Your task to perform on an android device: open app "Google News" Image 0: 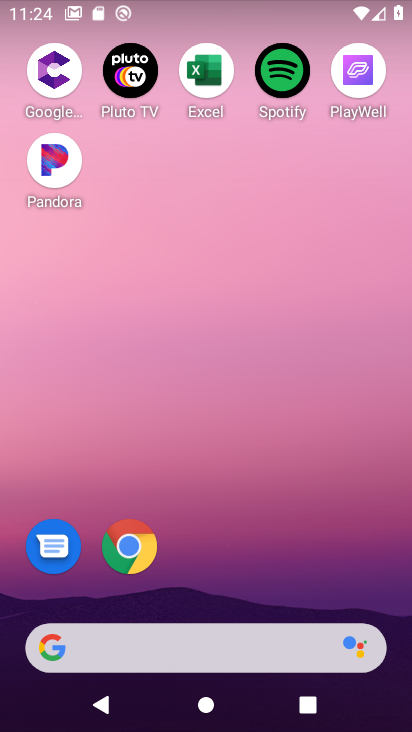
Step 0: drag from (192, 592) to (192, 128)
Your task to perform on an android device: open app "Google News" Image 1: 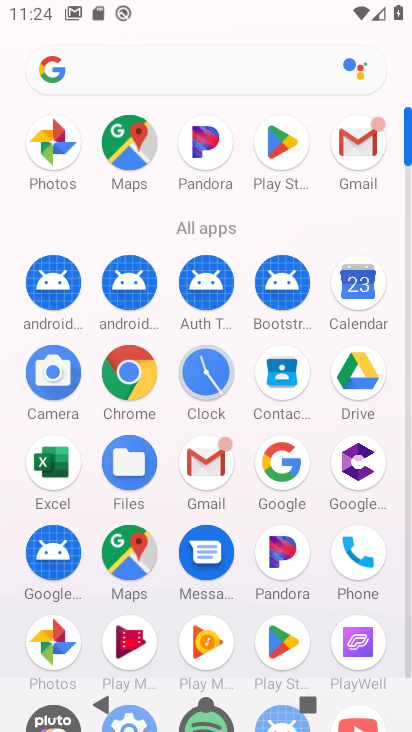
Step 1: click (275, 140)
Your task to perform on an android device: open app "Google News" Image 2: 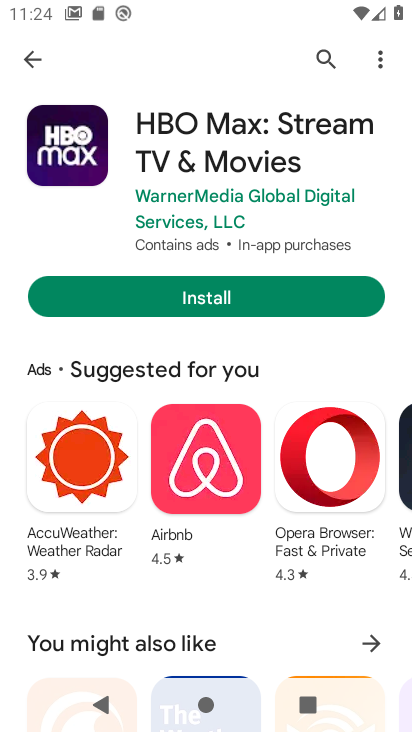
Step 2: click (30, 53)
Your task to perform on an android device: open app "Google News" Image 3: 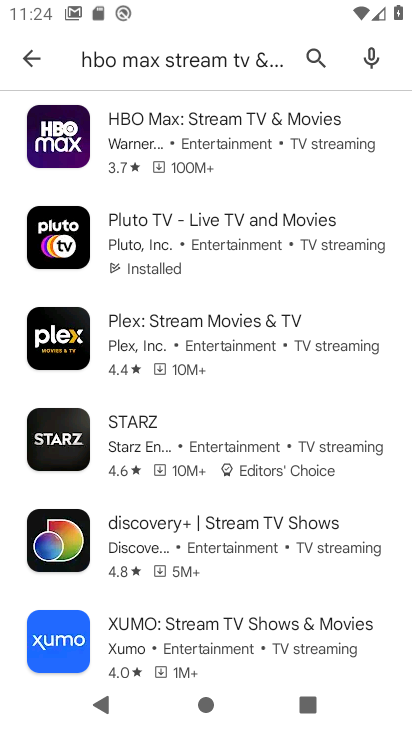
Step 3: click (317, 50)
Your task to perform on an android device: open app "Google News" Image 4: 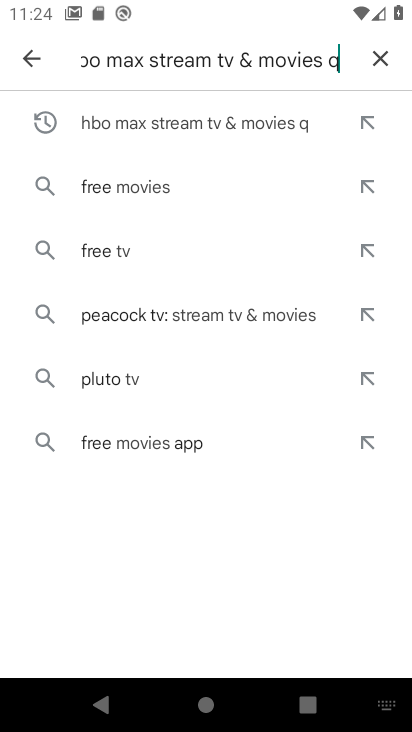
Step 4: click (383, 60)
Your task to perform on an android device: open app "Google News" Image 5: 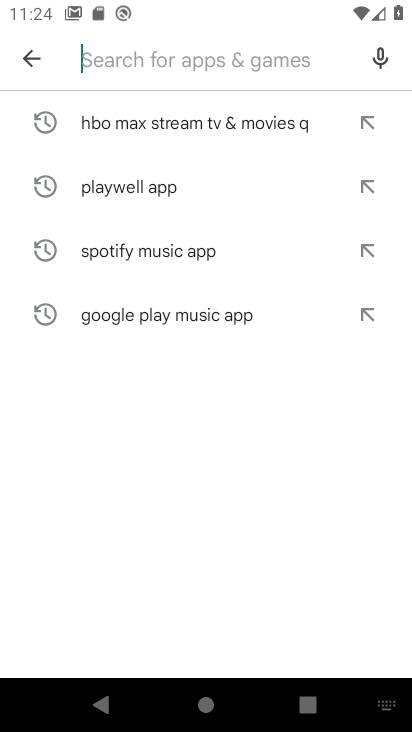
Step 5: click (184, 58)
Your task to perform on an android device: open app "Google News" Image 6: 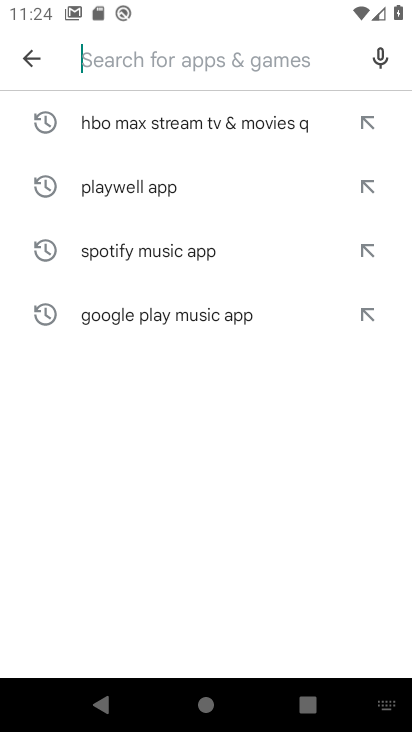
Step 6: type "Google News "
Your task to perform on an android device: open app "Google News" Image 7: 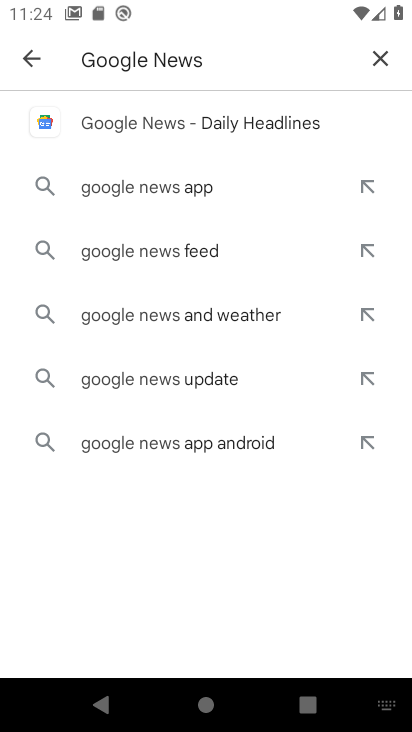
Step 7: click (186, 124)
Your task to perform on an android device: open app "Google News" Image 8: 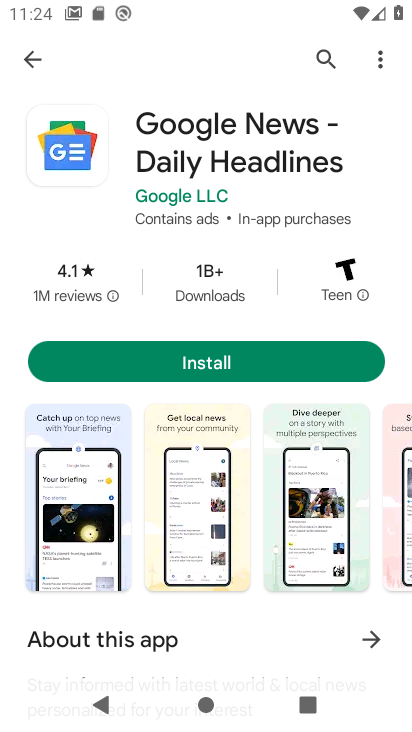
Step 8: click (230, 361)
Your task to perform on an android device: open app "Google News" Image 9: 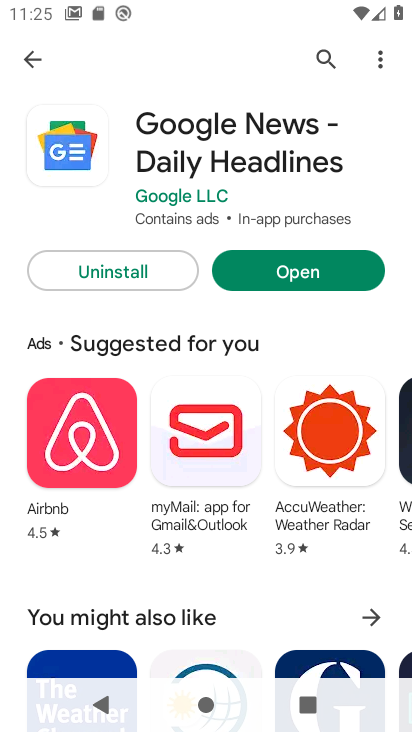
Step 9: task complete